Your task to perform on an android device: Open Amazon Image 0: 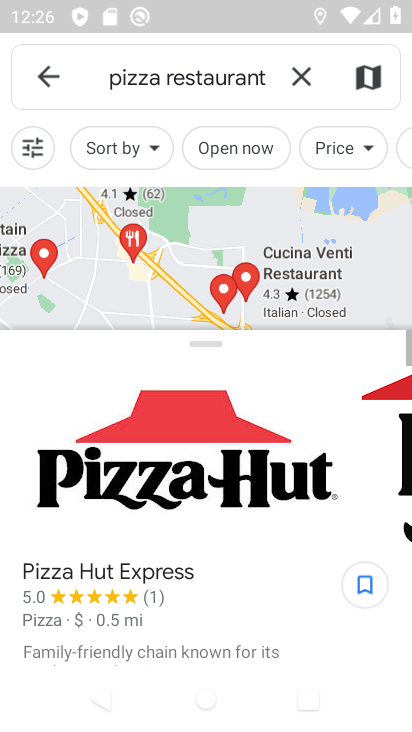
Step 0: press home button
Your task to perform on an android device: Open Amazon Image 1: 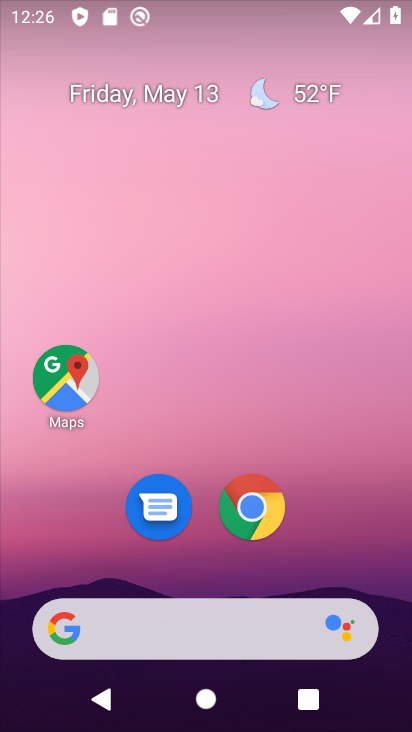
Step 1: click (244, 518)
Your task to perform on an android device: Open Amazon Image 2: 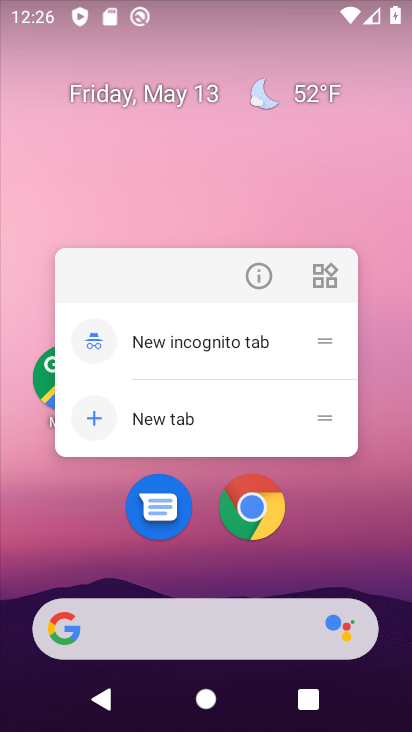
Step 2: click (245, 517)
Your task to perform on an android device: Open Amazon Image 3: 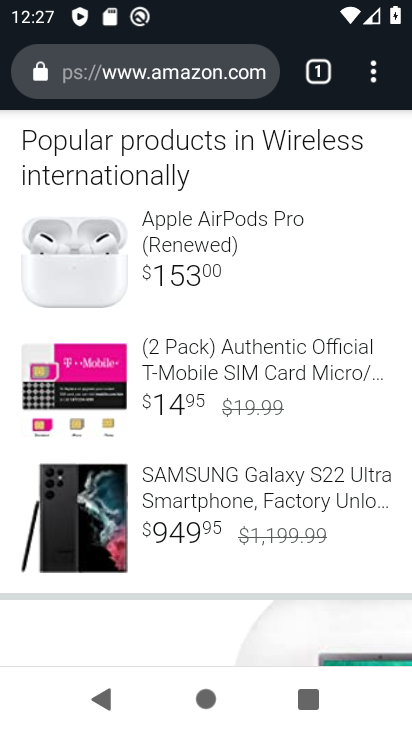
Step 3: task complete